Your task to perform on an android device: open app "Lyft - Rideshare, Bikes, Scooters & Transit" Image 0: 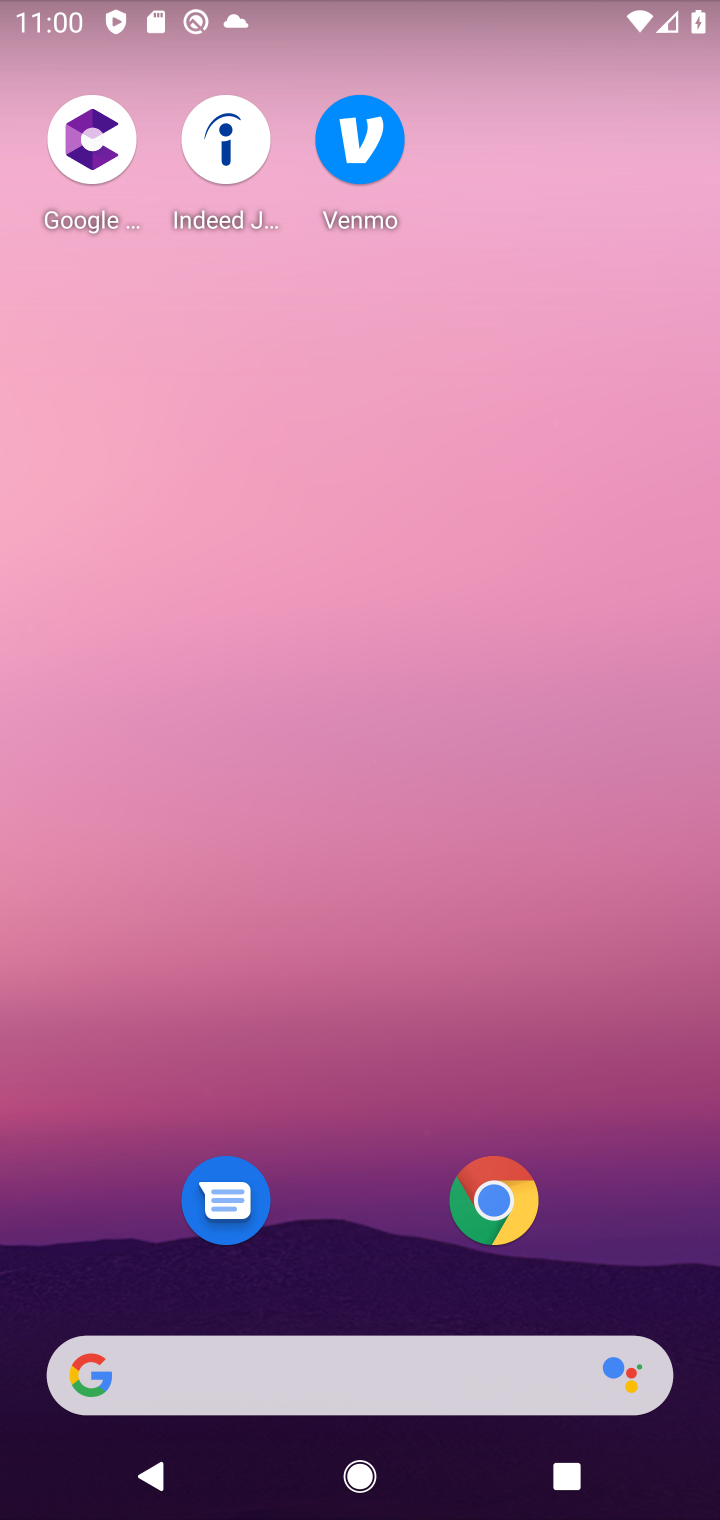
Step 0: press home button
Your task to perform on an android device: open app "Lyft - Rideshare, Bikes, Scooters & Transit" Image 1: 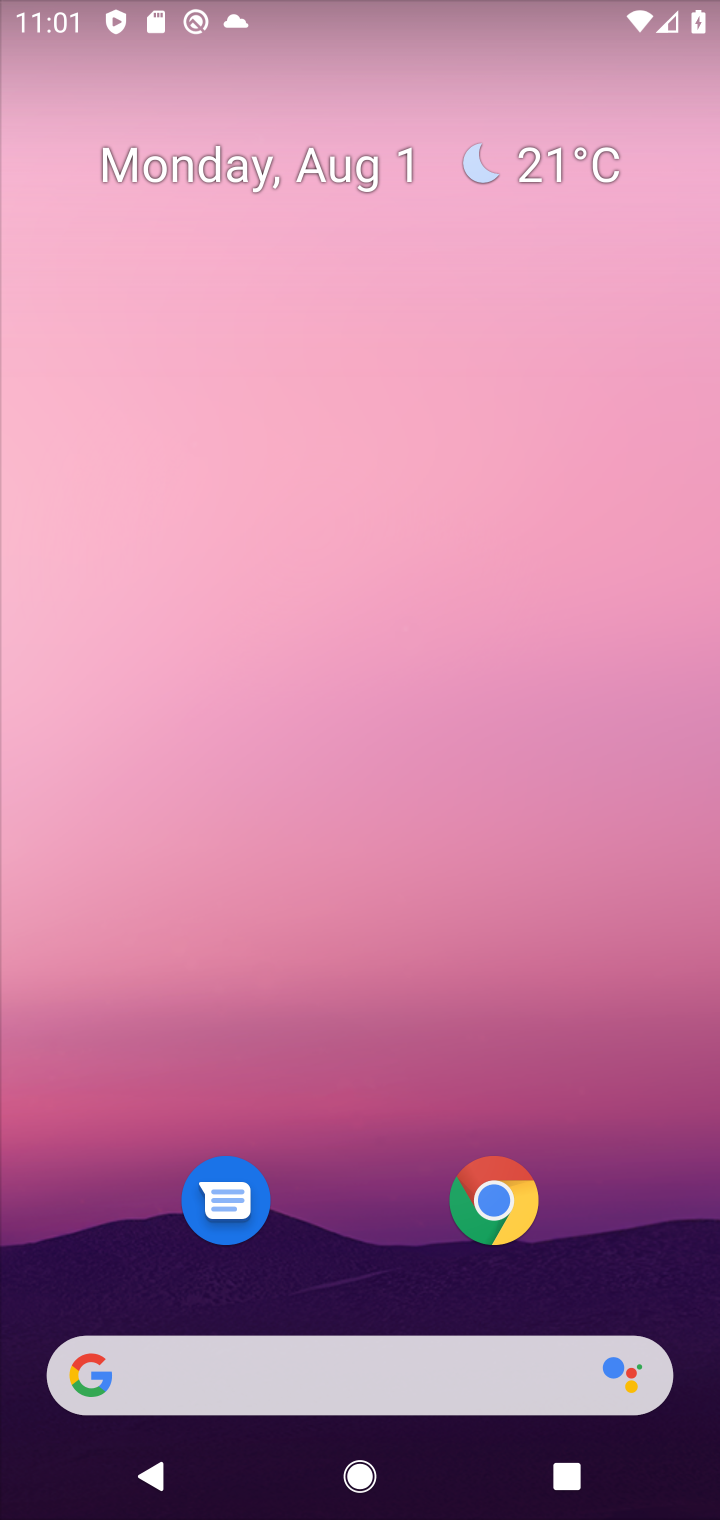
Step 1: drag from (349, 1232) to (360, 121)
Your task to perform on an android device: open app "Lyft - Rideshare, Bikes, Scooters & Transit" Image 2: 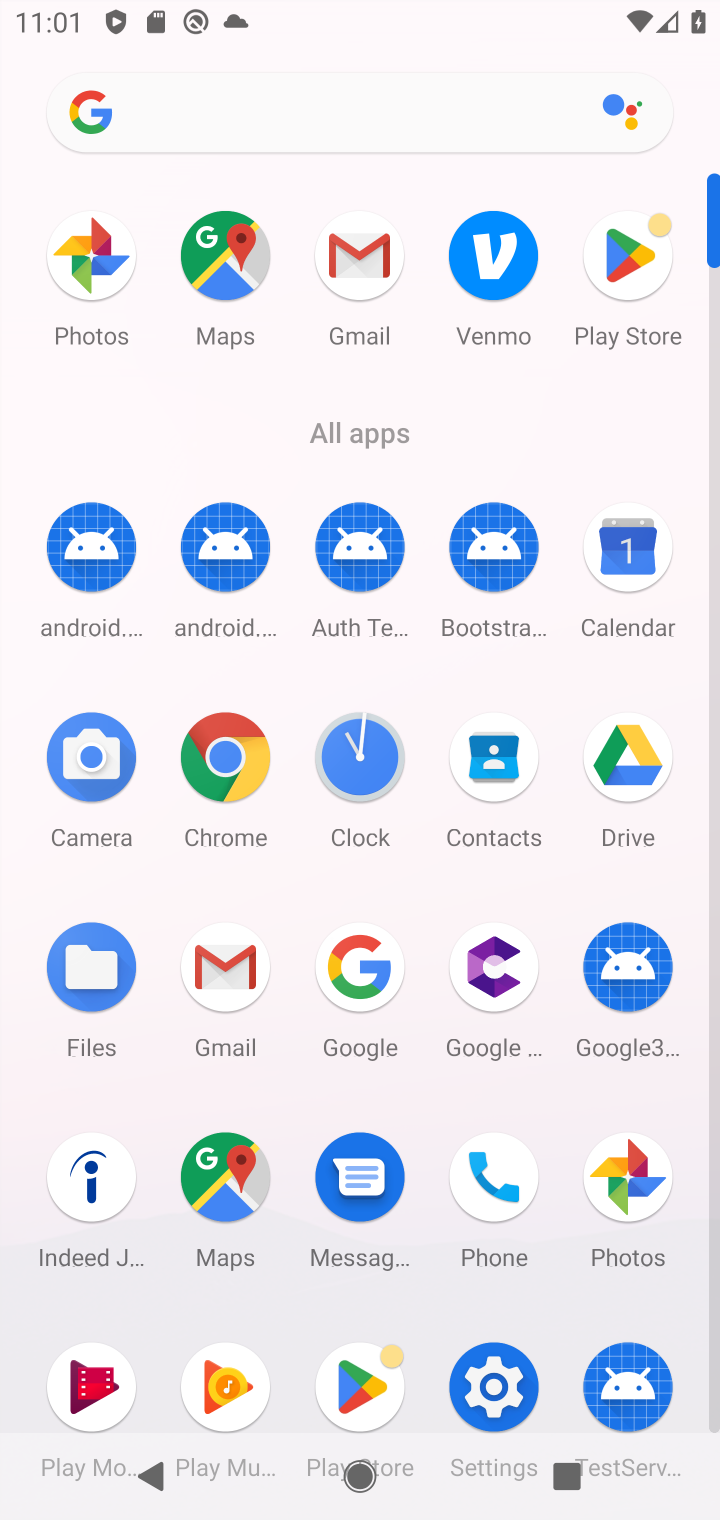
Step 2: click (621, 272)
Your task to perform on an android device: open app "Lyft - Rideshare, Bikes, Scooters & Transit" Image 3: 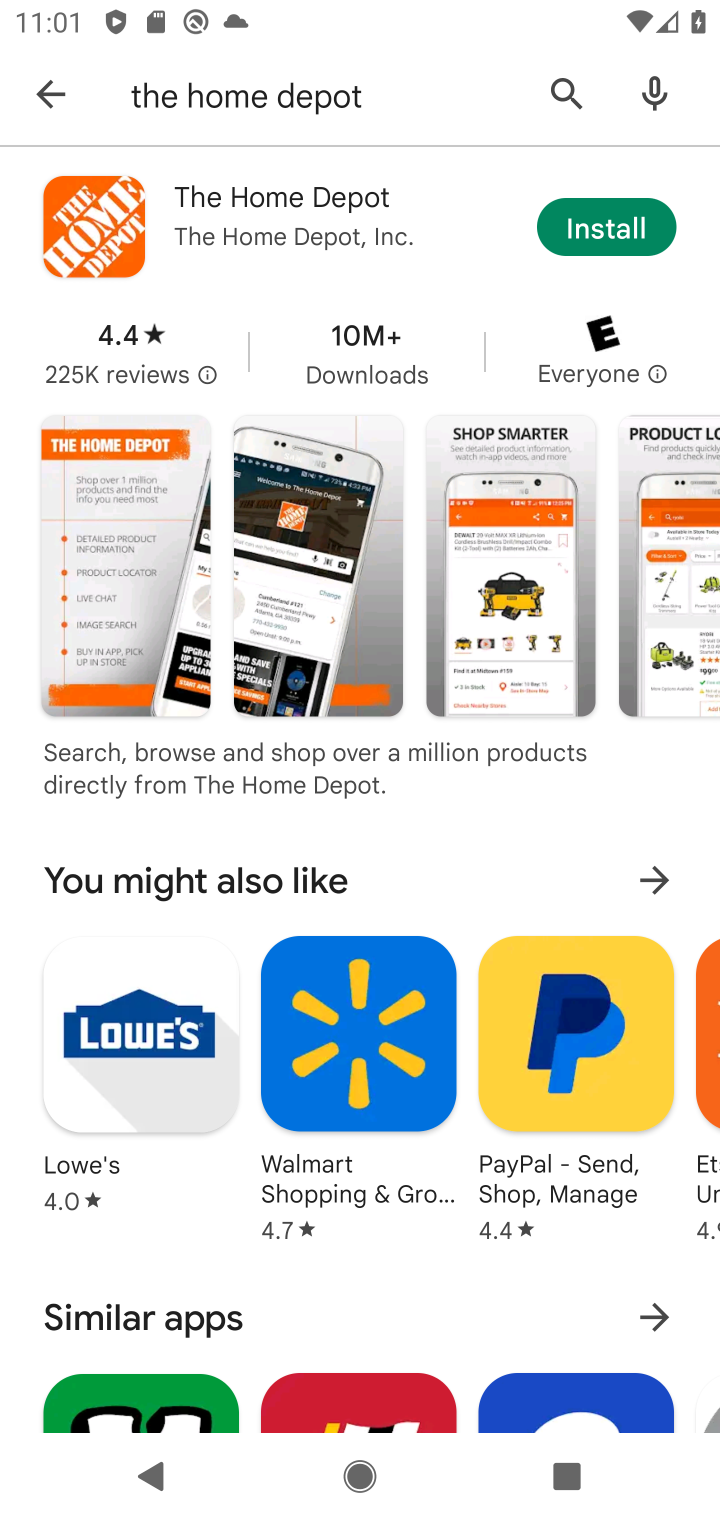
Step 3: click (561, 110)
Your task to perform on an android device: open app "Lyft - Rideshare, Bikes, Scooters & Transit" Image 4: 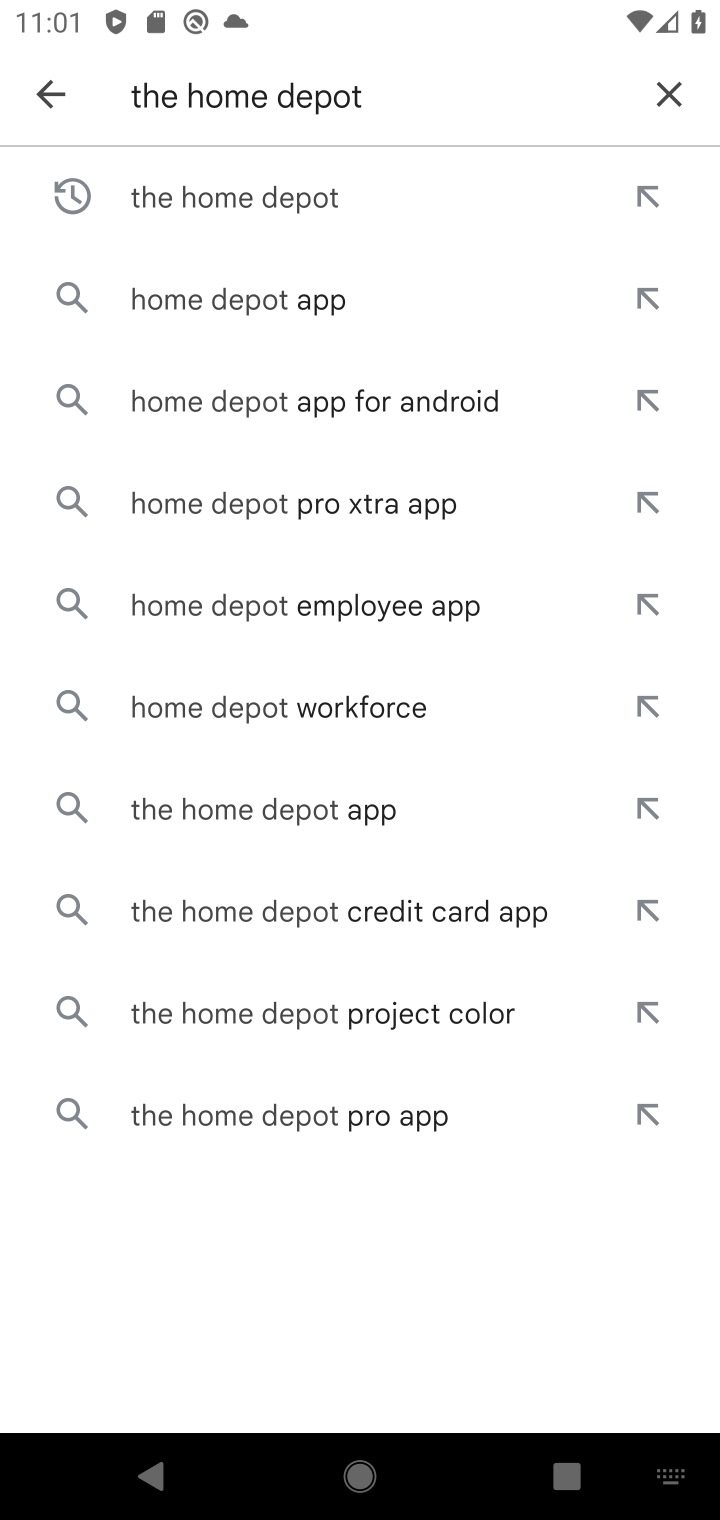
Step 4: click (673, 101)
Your task to perform on an android device: open app "Lyft - Rideshare, Bikes, Scooters & Transit" Image 5: 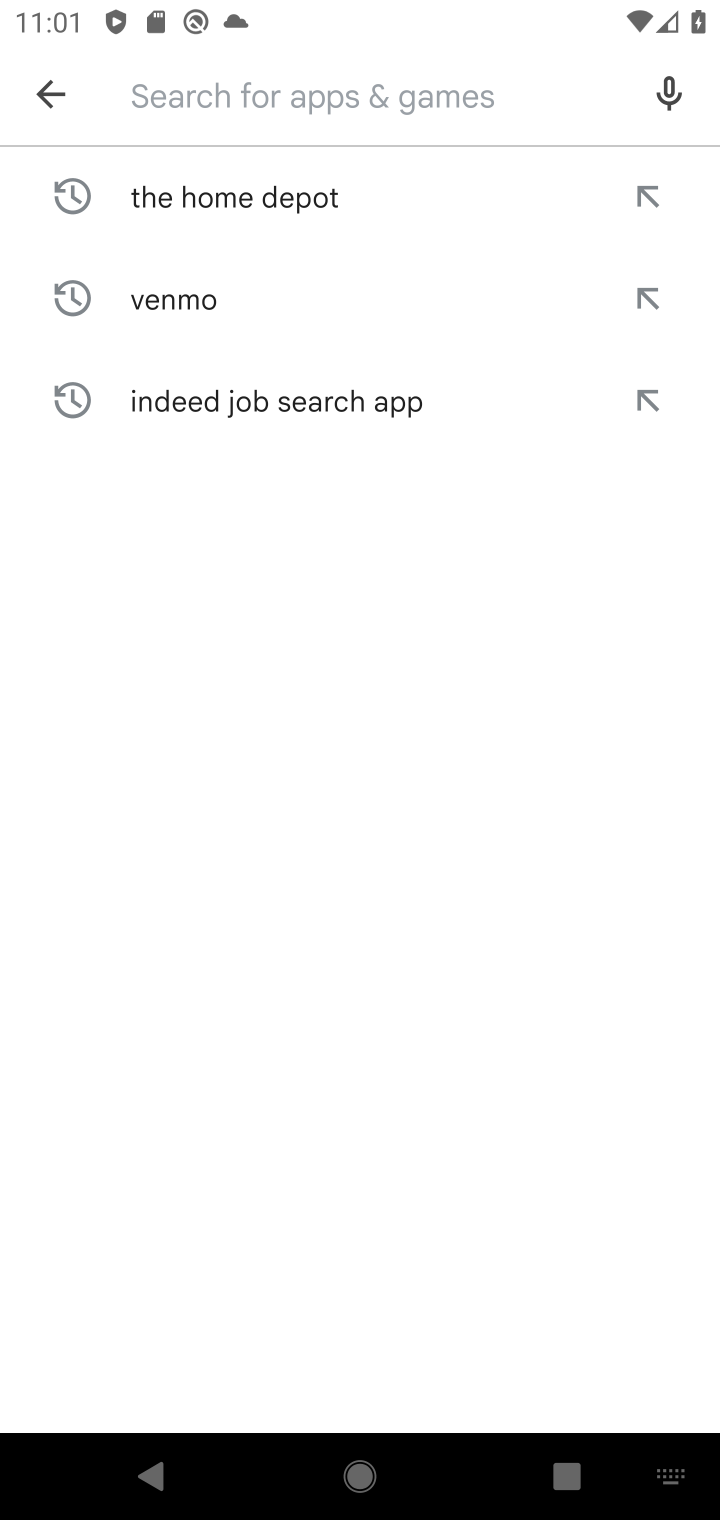
Step 5: type "Lyft - Rideshare, Bikes, Scooters & Transit"
Your task to perform on an android device: open app "Lyft - Rideshare, Bikes, Scooters & Transit" Image 6: 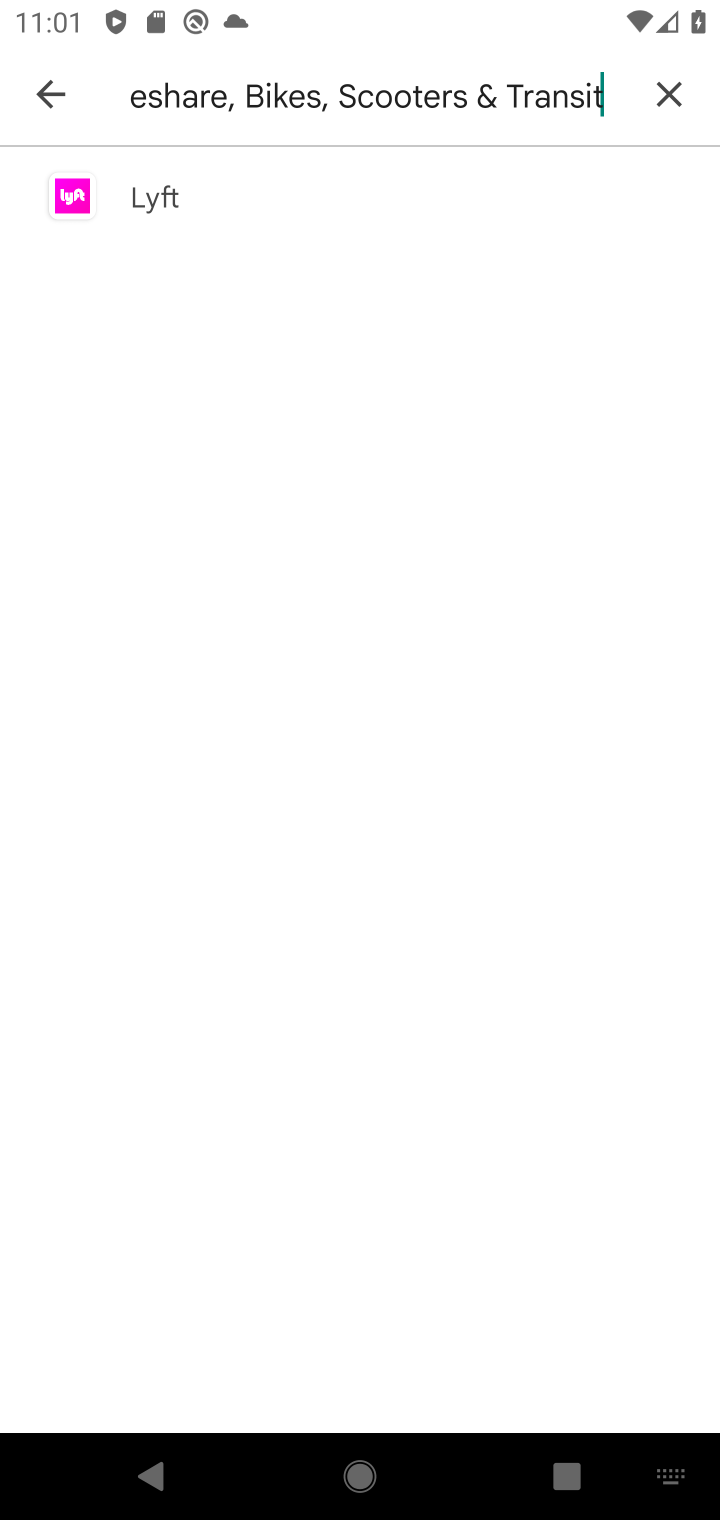
Step 6: click (156, 194)
Your task to perform on an android device: open app "Lyft - Rideshare, Bikes, Scooters & Transit" Image 7: 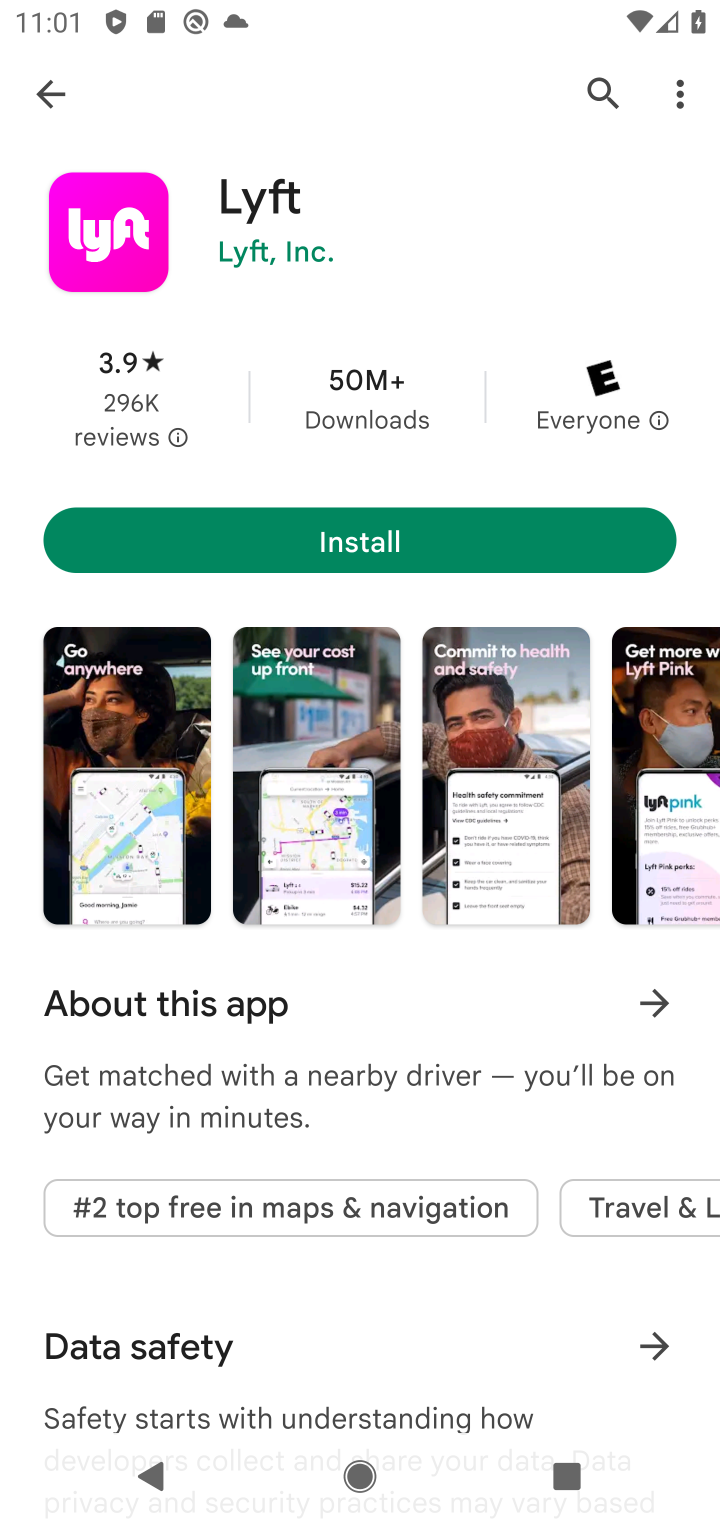
Step 7: task complete